Your task to perform on an android device: Open privacy settings Image 0: 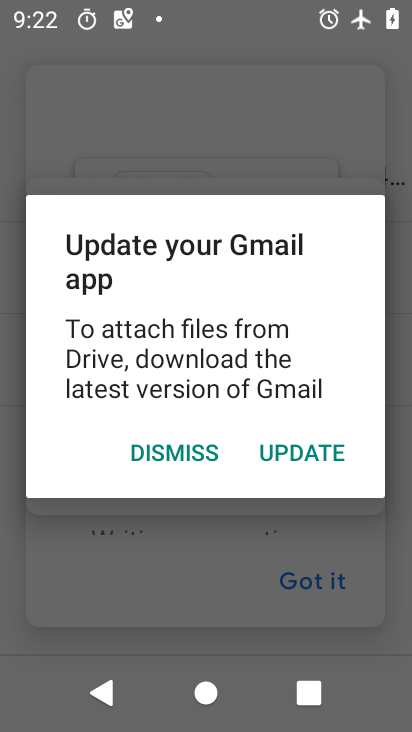
Step 0: press home button
Your task to perform on an android device: Open privacy settings Image 1: 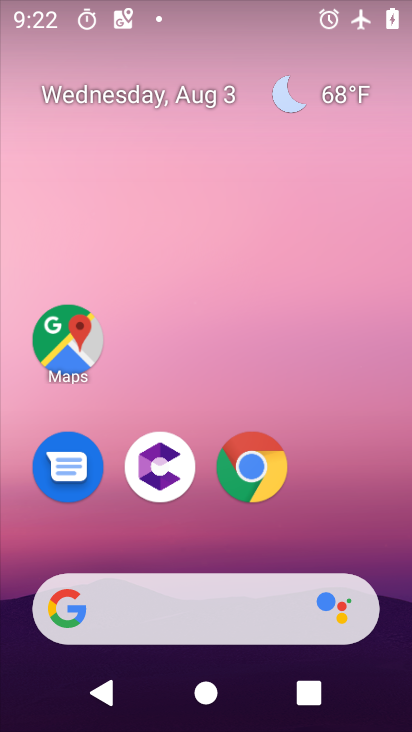
Step 1: drag from (344, 371) to (408, 357)
Your task to perform on an android device: Open privacy settings Image 2: 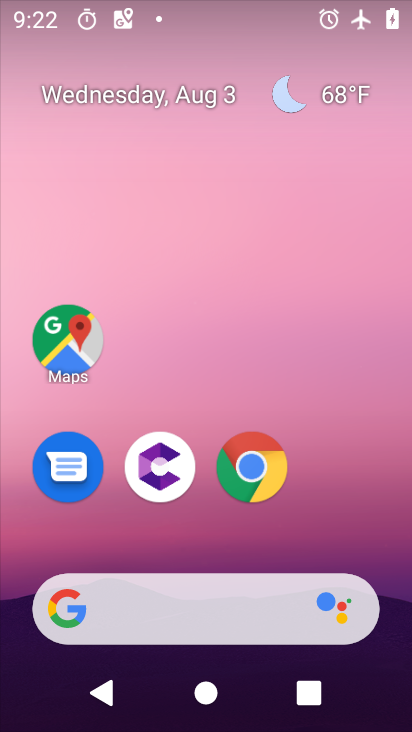
Step 2: drag from (303, 506) to (274, 67)
Your task to perform on an android device: Open privacy settings Image 3: 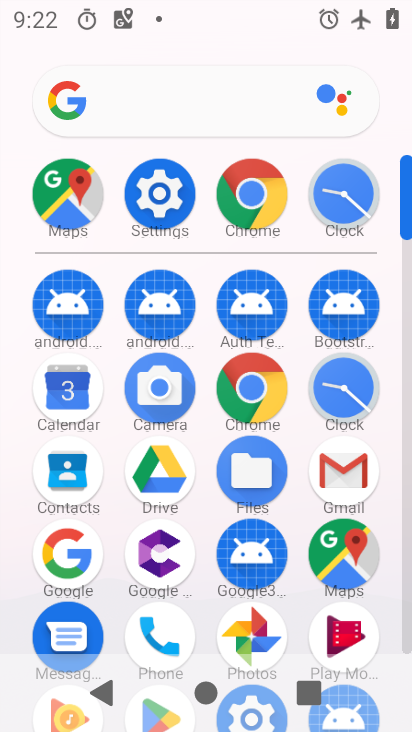
Step 3: click (165, 204)
Your task to perform on an android device: Open privacy settings Image 4: 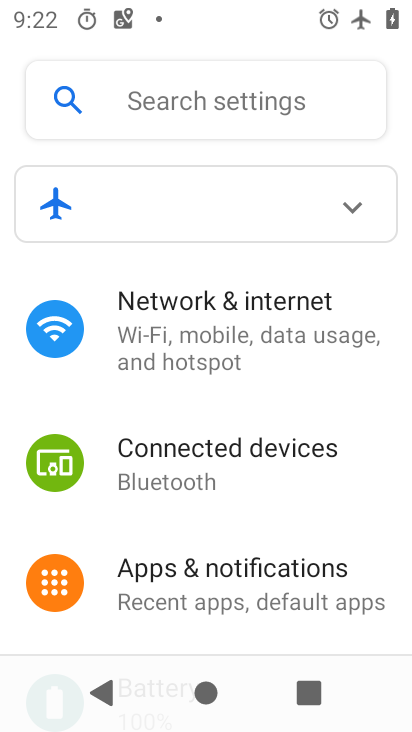
Step 4: drag from (346, 537) to (328, 55)
Your task to perform on an android device: Open privacy settings Image 5: 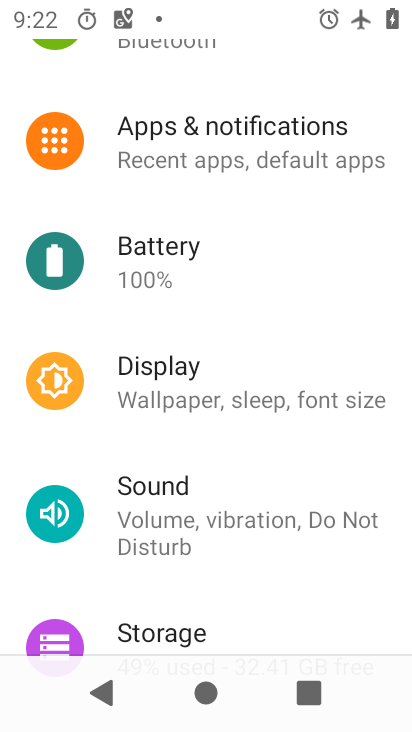
Step 5: drag from (338, 538) to (345, 106)
Your task to perform on an android device: Open privacy settings Image 6: 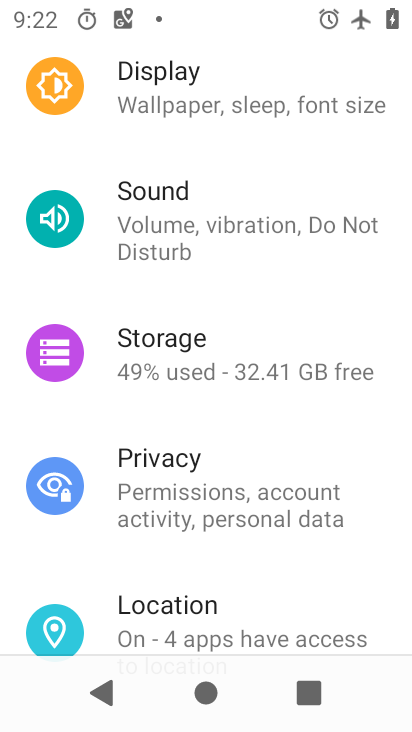
Step 6: click (259, 478)
Your task to perform on an android device: Open privacy settings Image 7: 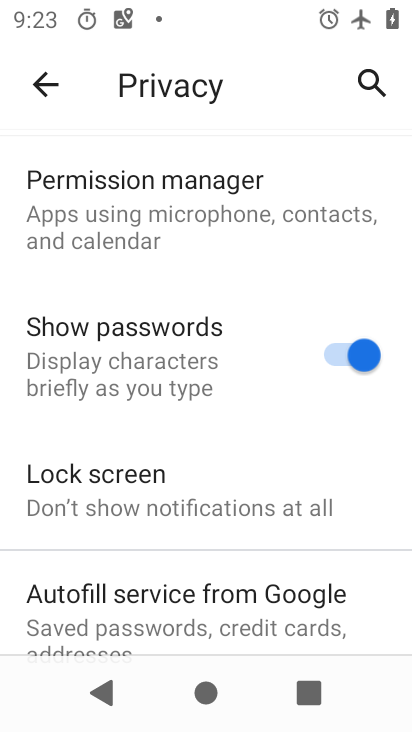
Step 7: task complete